Your task to perform on an android device: set an alarm Image 0: 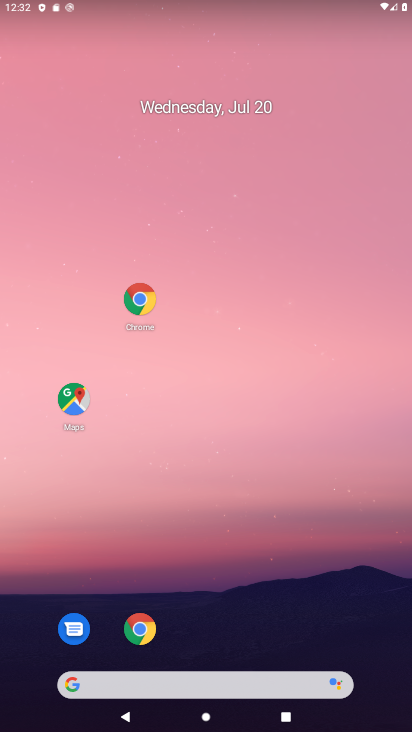
Step 0: drag from (255, 708) to (228, 291)
Your task to perform on an android device: set an alarm Image 1: 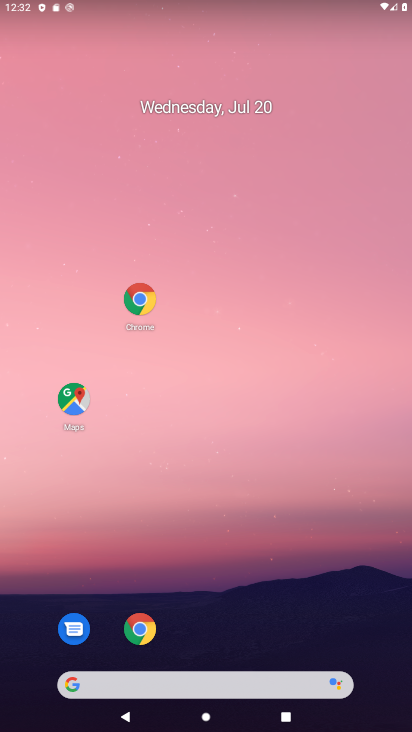
Step 1: drag from (193, 381) to (167, 212)
Your task to perform on an android device: set an alarm Image 2: 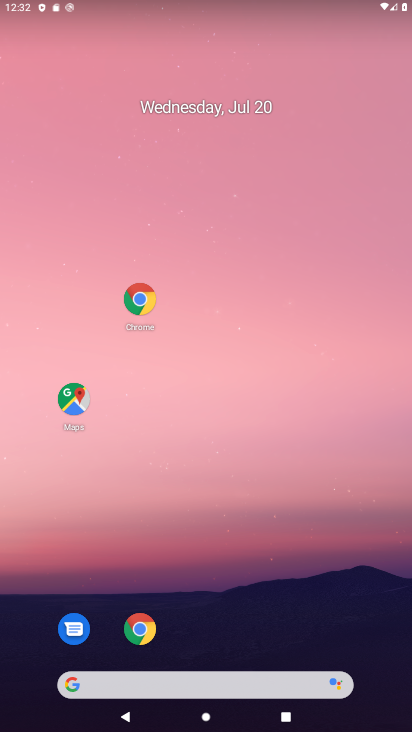
Step 2: drag from (194, 372) to (180, 257)
Your task to perform on an android device: set an alarm Image 3: 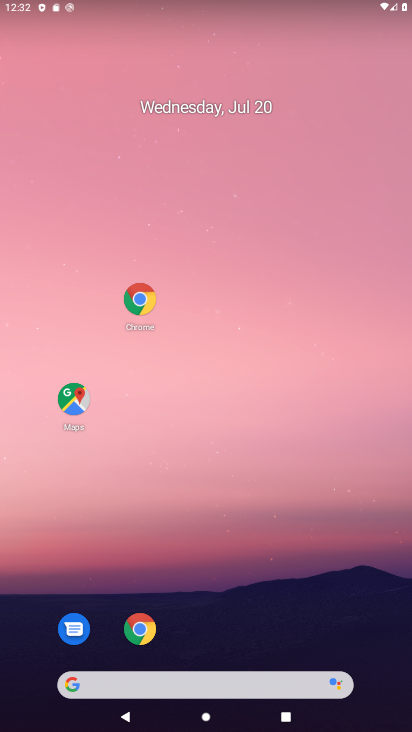
Step 3: drag from (245, 563) to (242, 228)
Your task to perform on an android device: set an alarm Image 4: 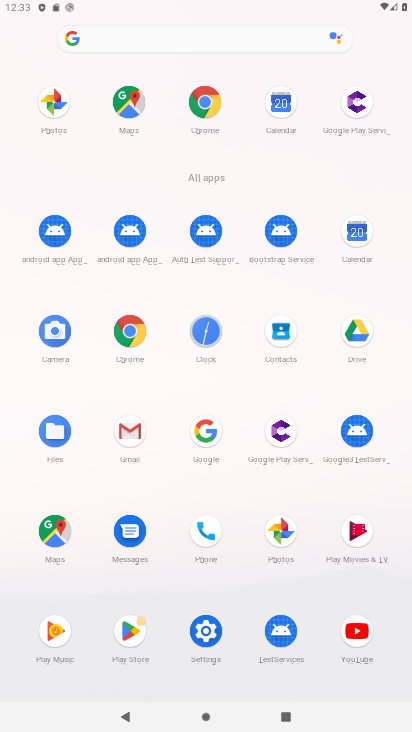
Step 4: click (204, 329)
Your task to perform on an android device: set an alarm Image 5: 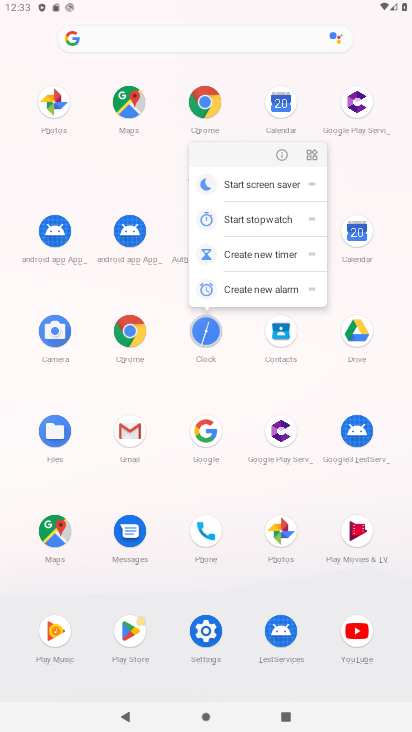
Step 5: click (204, 329)
Your task to perform on an android device: set an alarm Image 6: 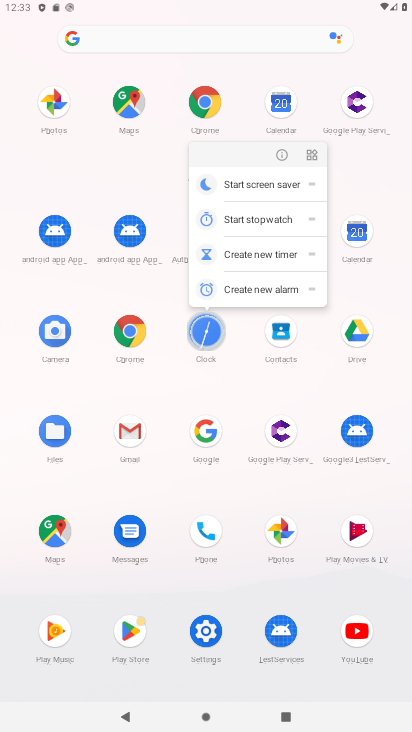
Step 6: click (205, 329)
Your task to perform on an android device: set an alarm Image 7: 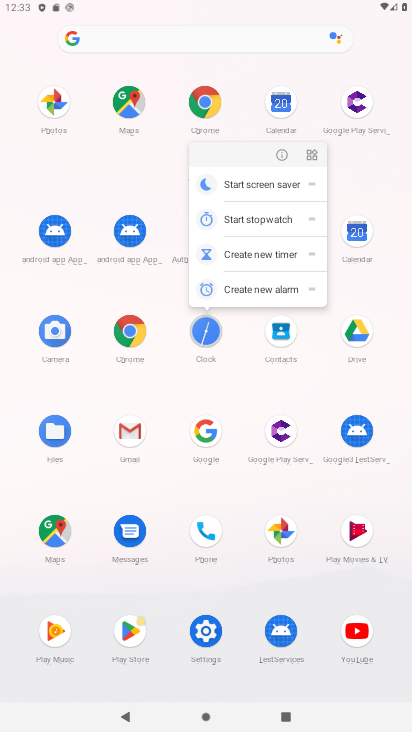
Step 7: click (213, 327)
Your task to perform on an android device: set an alarm Image 8: 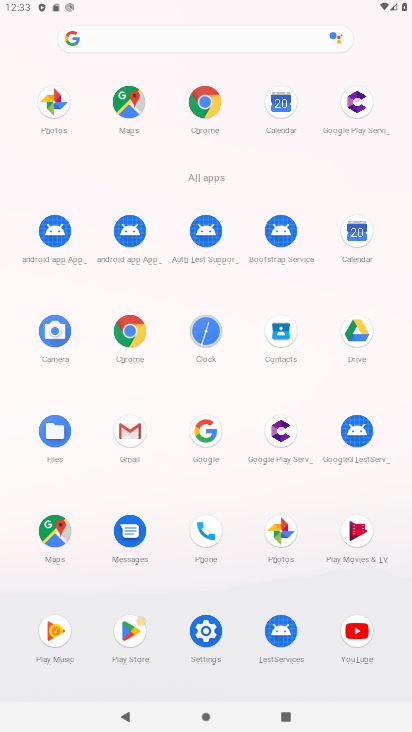
Step 8: click (207, 336)
Your task to perform on an android device: set an alarm Image 9: 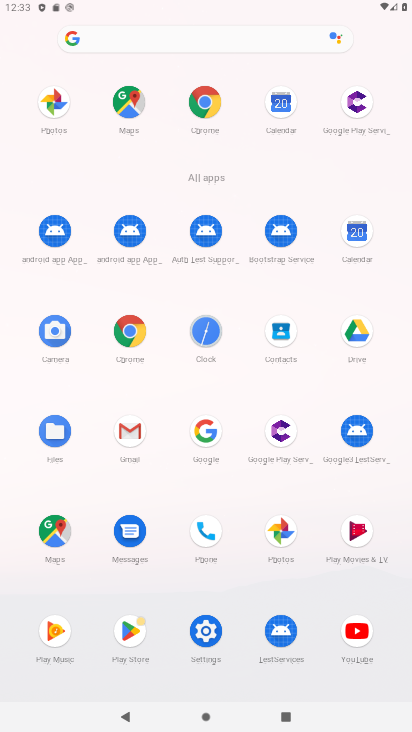
Step 9: click (199, 336)
Your task to perform on an android device: set an alarm Image 10: 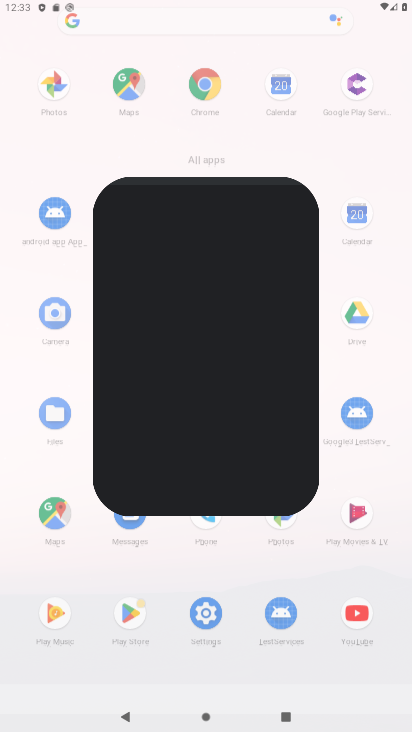
Step 10: click (217, 323)
Your task to perform on an android device: set an alarm Image 11: 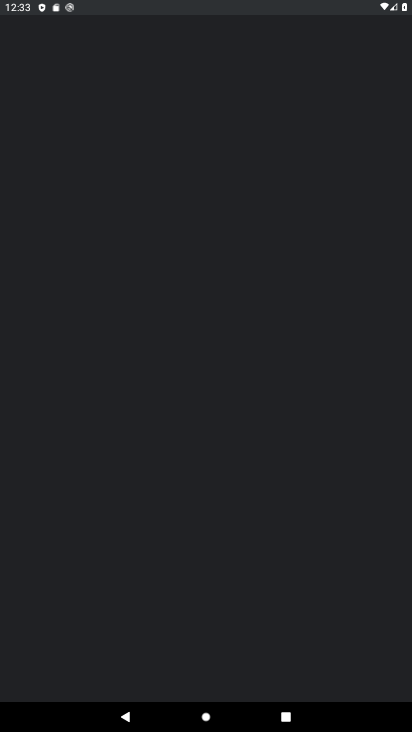
Step 11: click (216, 328)
Your task to perform on an android device: set an alarm Image 12: 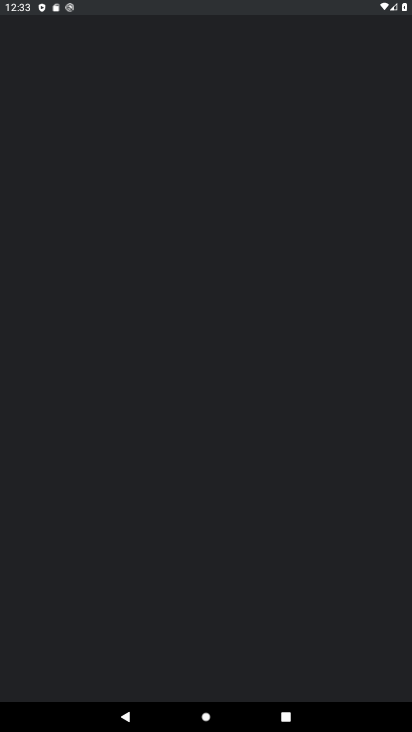
Step 12: click (212, 331)
Your task to perform on an android device: set an alarm Image 13: 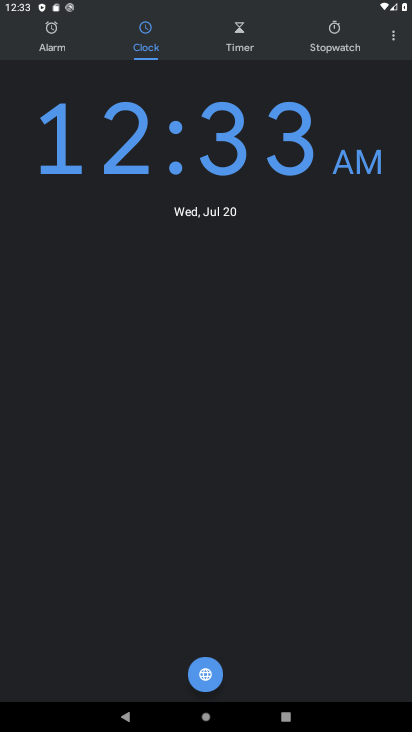
Step 13: click (61, 36)
Your task to perform on an android device: set an alarm Image 14: 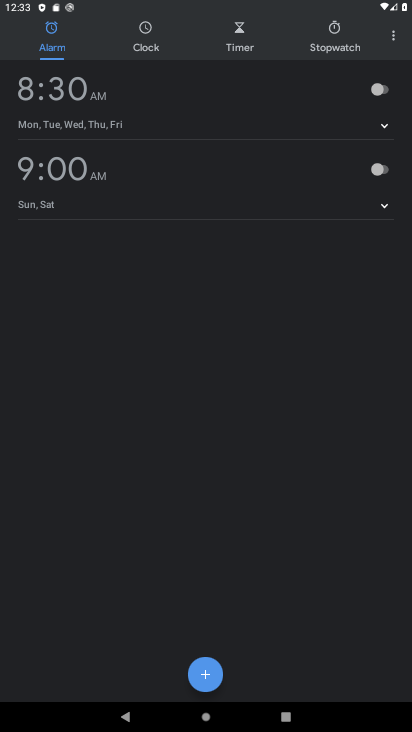
Step 14: click (373, 89)
Your task to perform on an android device: set an alarm Image 15: 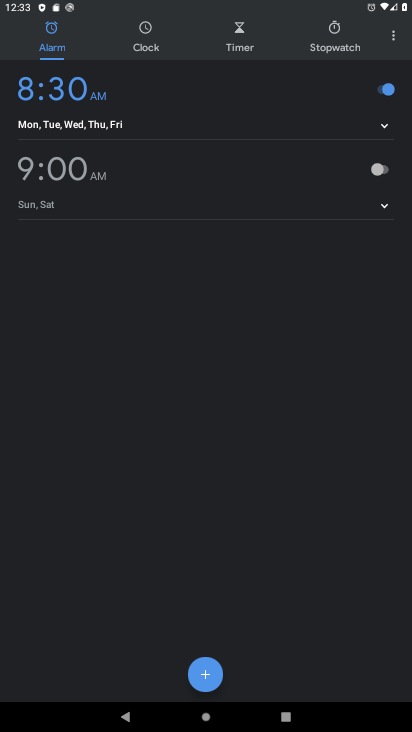
Step 15: task complete